Your task to perform on an android device: Search for pizza restaurants on Maps Image 0: 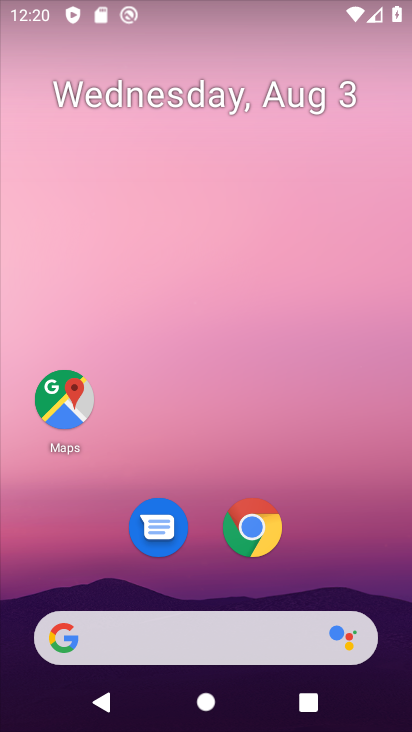
Step 0: click (63, 404)
Your task to perform on an android device: Search for pizza restaurants on Maps Image 1: 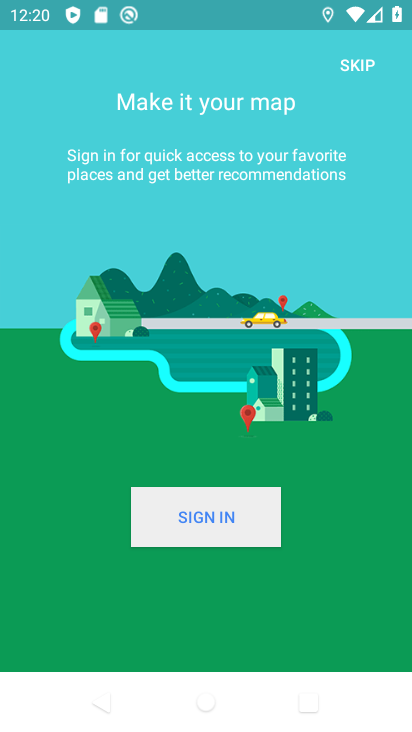
Step 1: click (363, 64)
Your task to perform on an android device: Search for pizza restaurants on Maps Image 2: 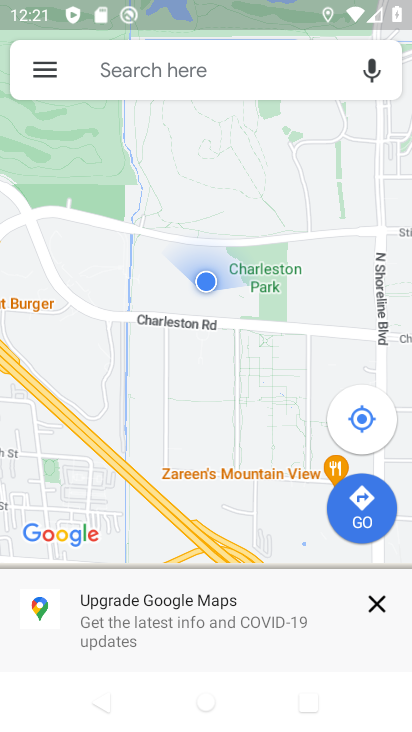
Step 2: click (203, 74)
Your task to perform on an android device: Search for pizza restaurants on Maps Image 3: 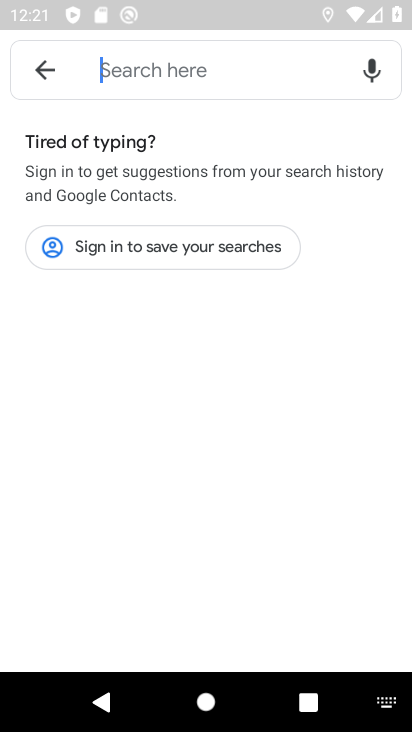
Step 3: type "pizza restaurants "
Your task to perform on an android device: Search for pizza restaurants on Maps Image 4: 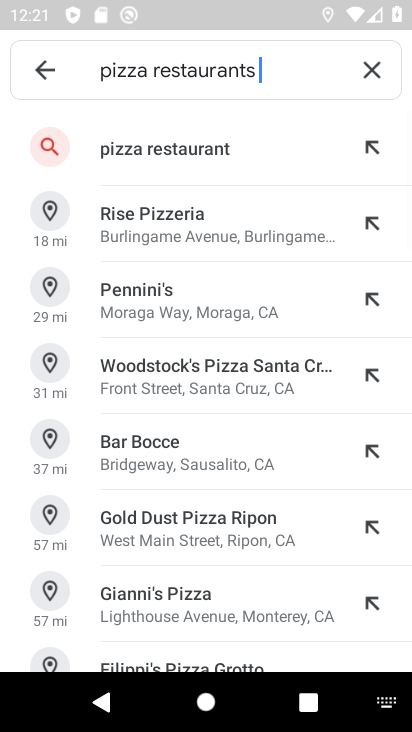
Step 4: click (201, 156)
Your task to perform on an android device: Search for pizza restaurants on Maps Image 5: 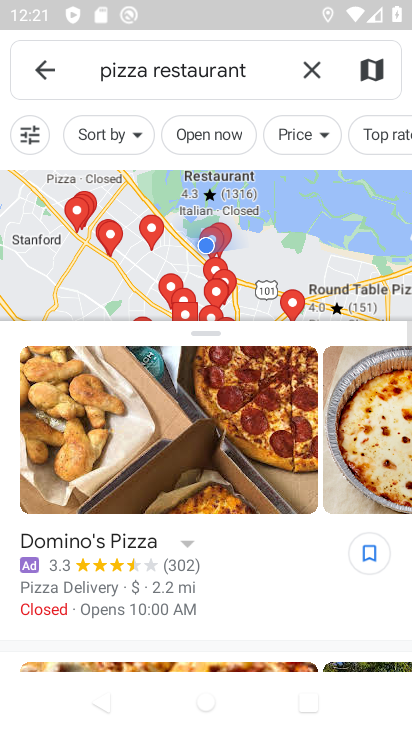
Step 5: task complete